Your task to perform on an android device: Open the map Image 0: 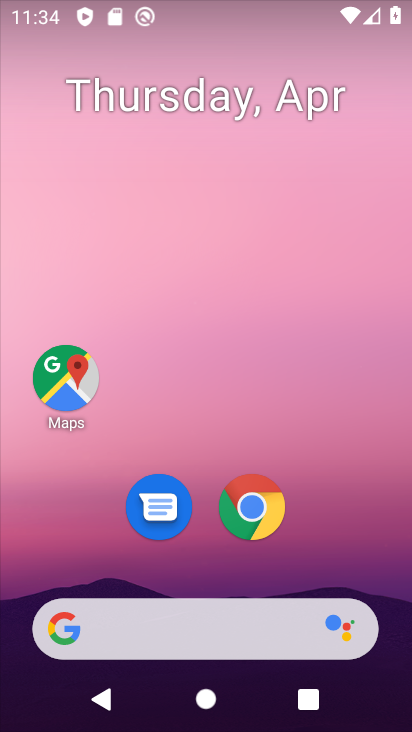
Step 0: drag from (219, 725) to (218, 114)
Your task to perform on an android device: Open the map Image 1: 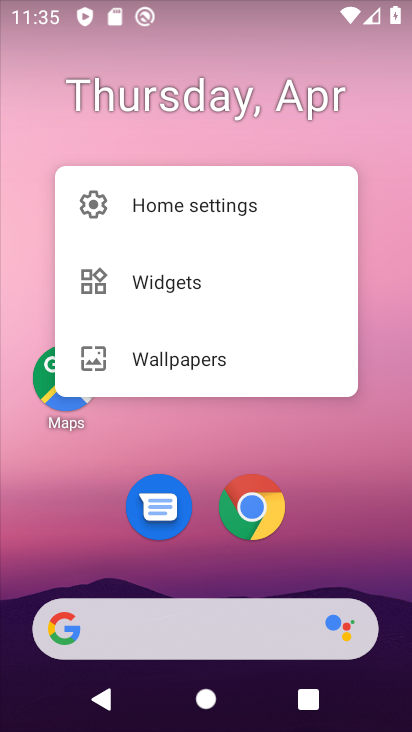
Step 1: drag from (218, 723) to (219, 157)
Your task to perform on an android device: Open the map Image 2: 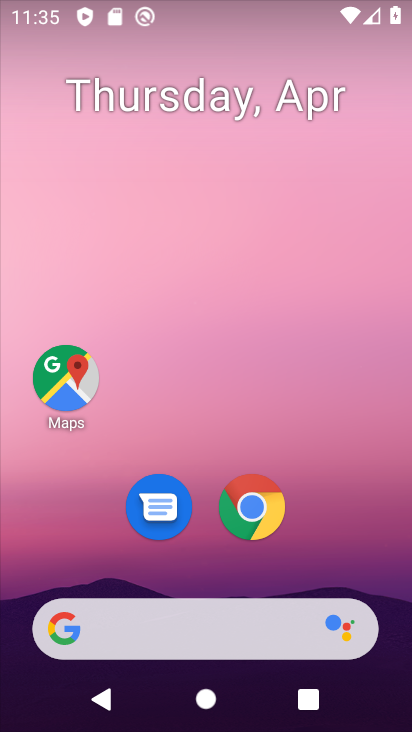
Step 2: drag from (224, 702) to (222, 157)
Your task to perform on an android device: Open the map Image 3: 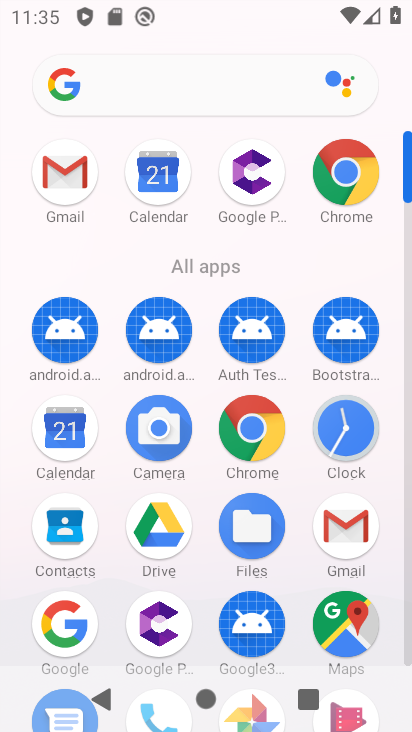
Step 3: click (350, 624)
Your task to perform on an android device: Open the map Image 4: 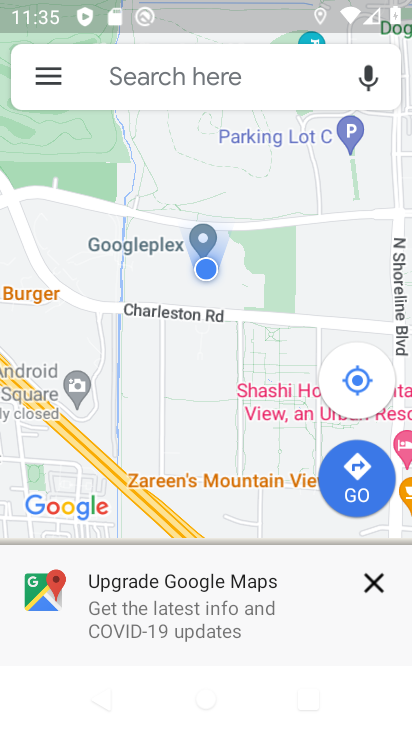
Step 4: task complete